Your task to perform on an android device: Search for the best books of all time on Goodreads Image 0: 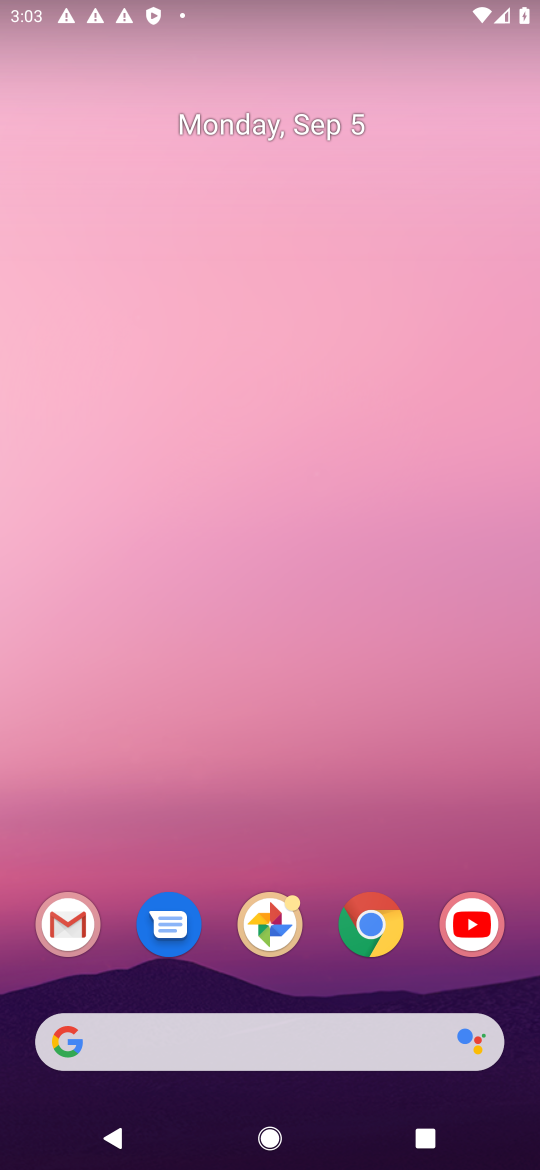
Step 0: drag from (342, 981) to (279, 162)
Your task to perform on an android device: Search for the best books of all time on Goodreads Image 1: 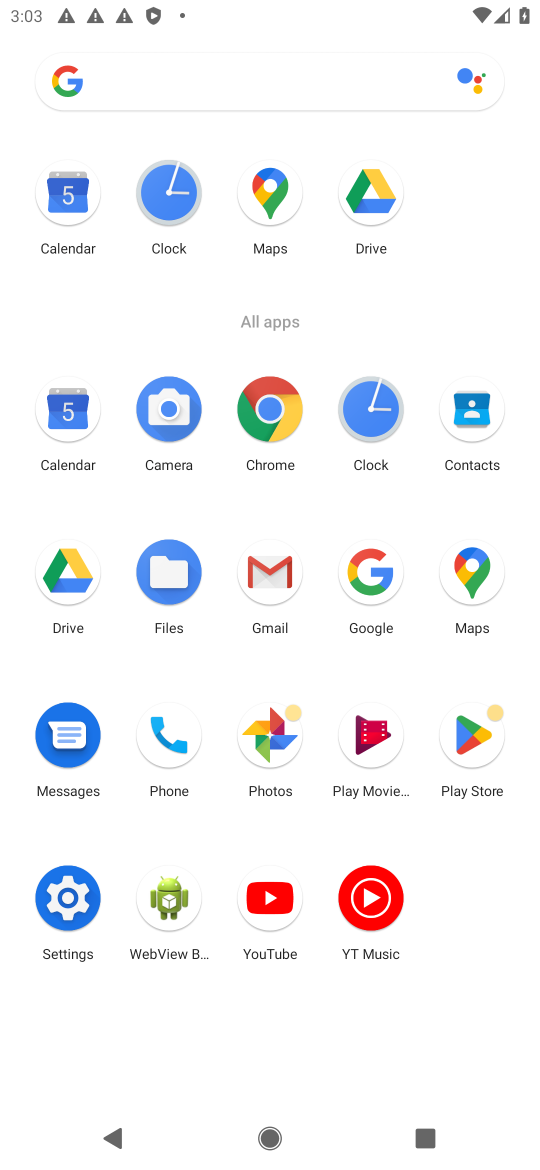
Step 1: click (273, 429)
Your task to perform on an android device: Search for the best books of all time on Goodreads Image 2: 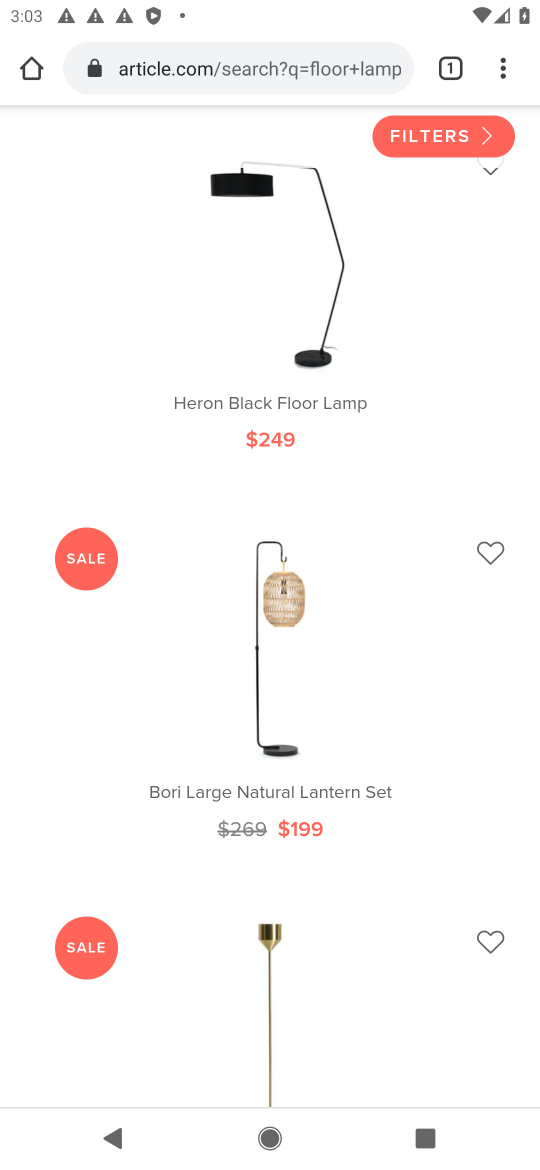
Step 2: click (272, 82)
Your task to perform on an android device: Search for the best books of all time on Goodreads Image 3: 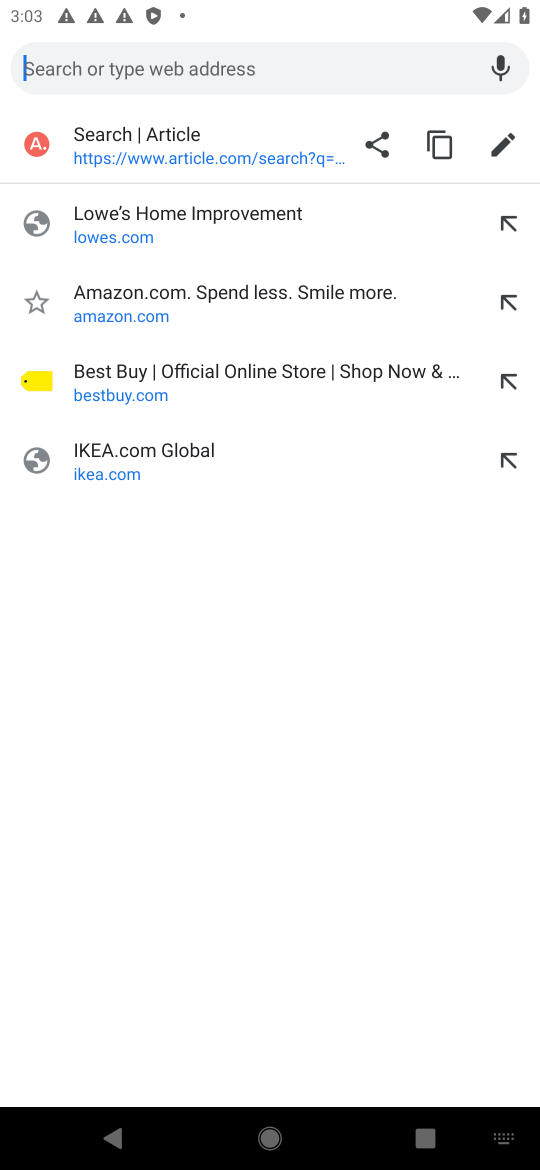
Step 3: type "goodreads"
Your task to perform on an android device: Search for the best books of all time on Goodreads Image 4: 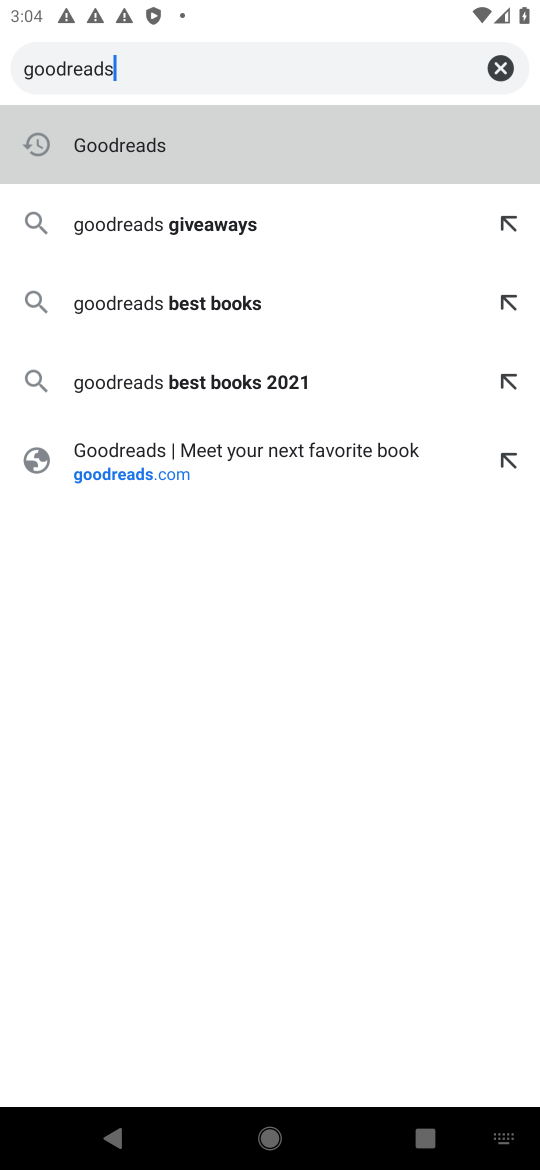
Step 4: click (231, 144)
Your task to perform on an android device: Search for the best books of all time on Goodreads Image 5: 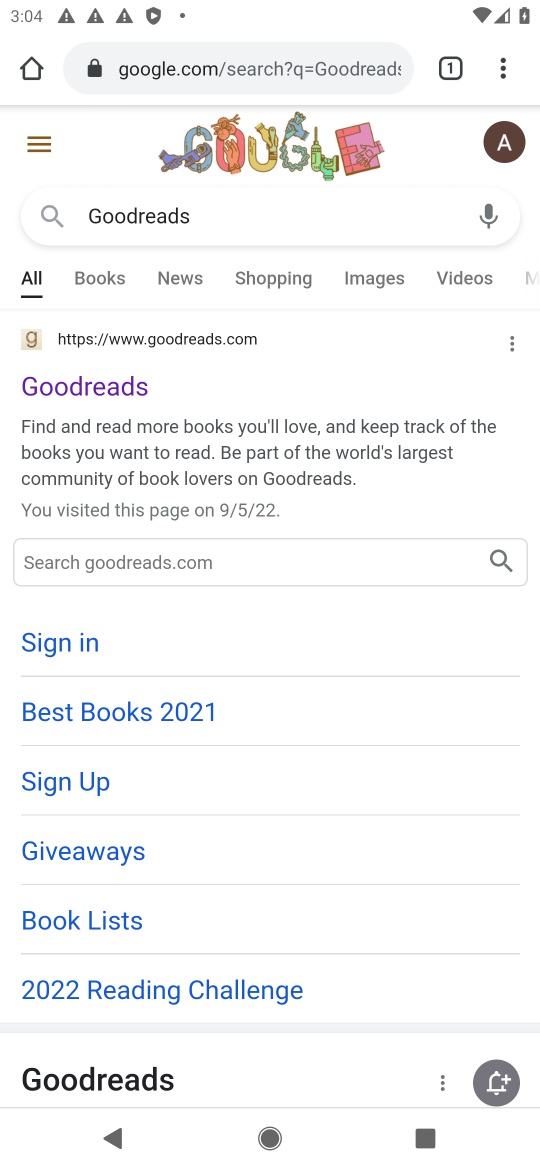
Step 5: click (115, 397)
Your task to perform on an android device: Search for the best books of all time on Goodreads Image 6: 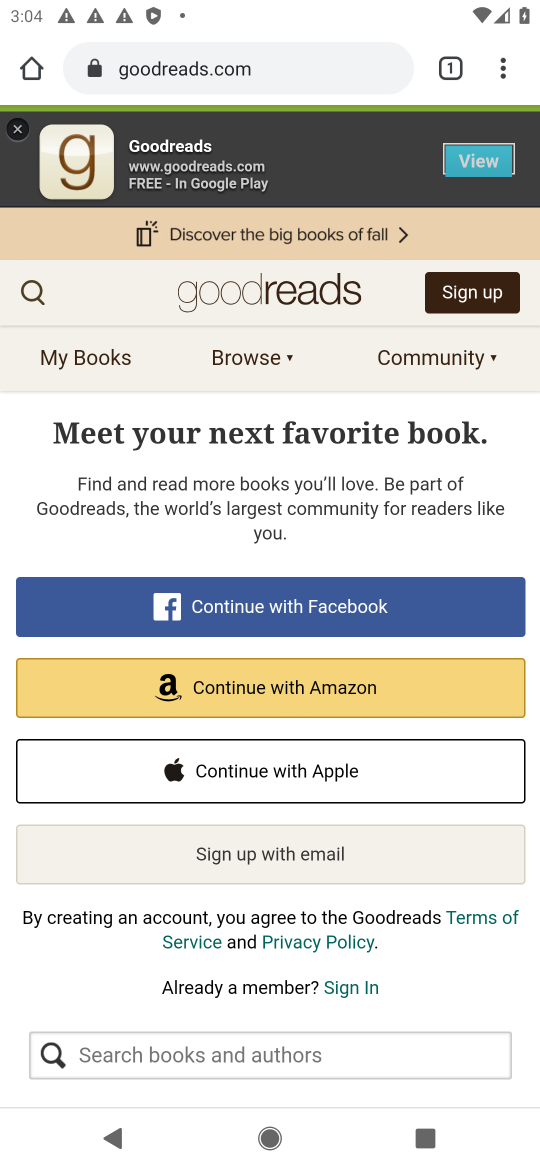
Step 6: click (30, 289)
Your task to perform on an android device: Search for the best books of all time on Goodreads Image 7: 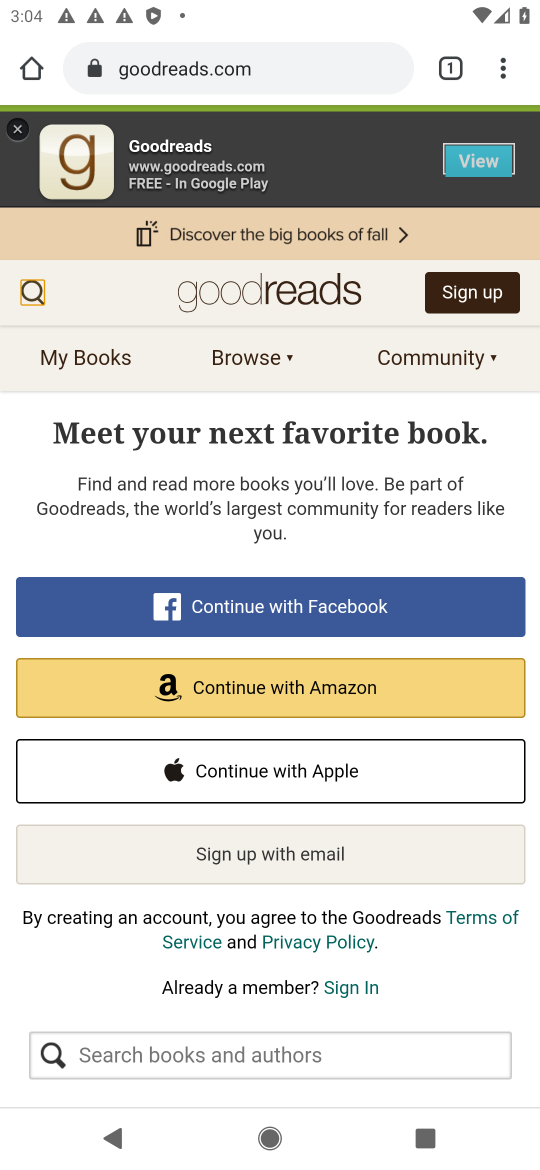
Step 7: click (37, 296)
Your task to perform on an android device: Search for the best books of all time on Goodreads Image 8: 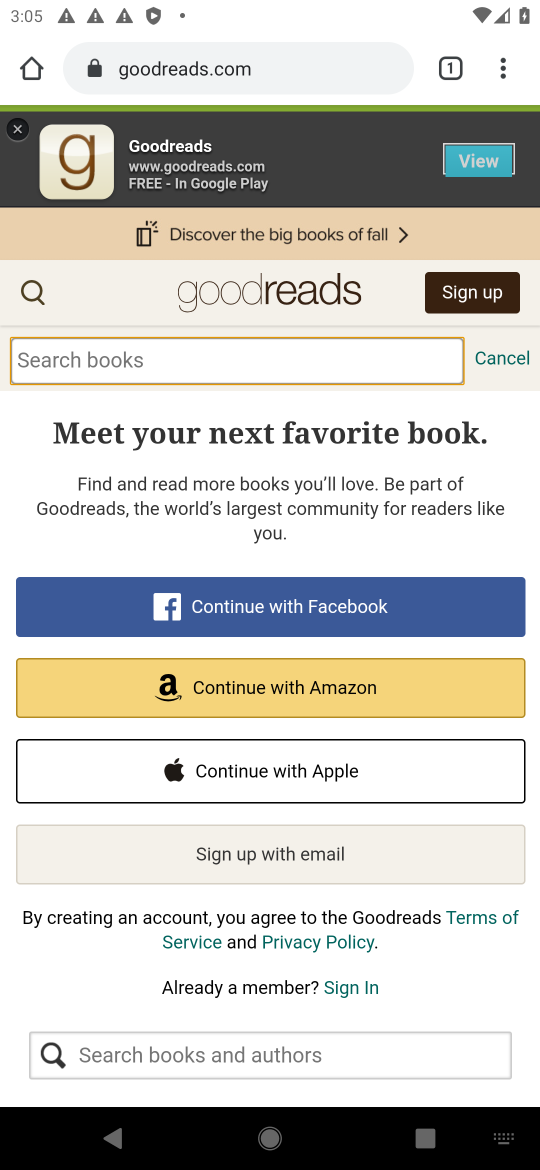
Step 8: type "best book of all time"
Your task to perform on an android device: Search for the best books of all time on Goodreads Image 9: 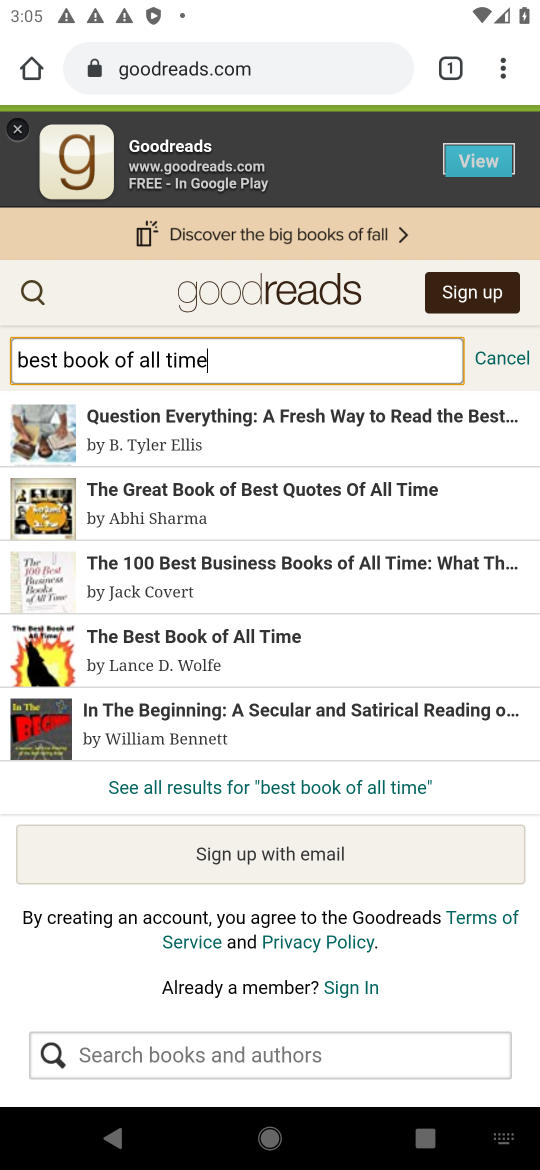
Step 9: task complete